Your task to perform on an android device: turn on priority inbox in the gmail app Image 0: 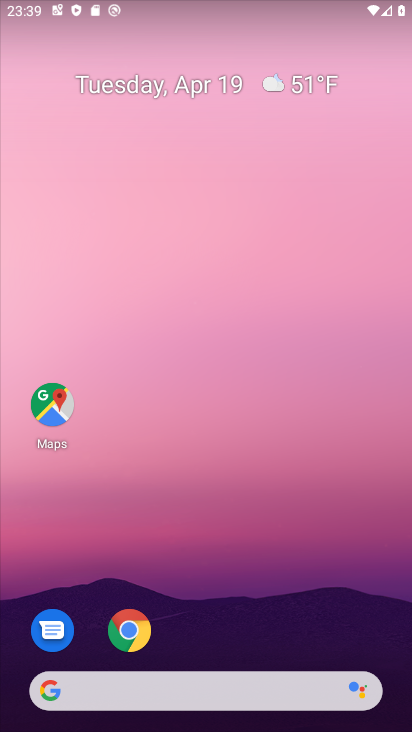
Step 0: drag from (338, 605) to (329, 196)
Your task to perform on an android device: turn on priority inbox in the gmail app Image 1: 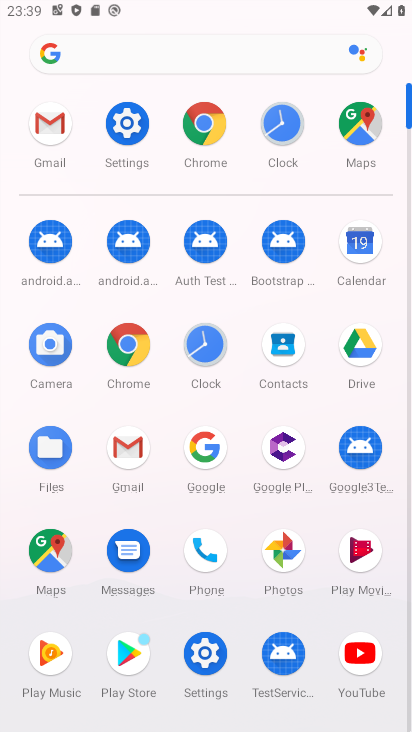
Step 1: click (63, 133)
Your task to perform on an android device: turn on priority inbox in the gmail app Image 2: 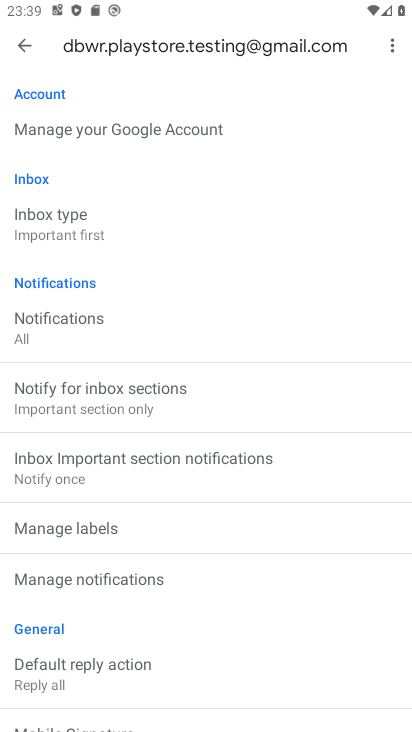
Step 2: click (112, 217)
Your task to perform on an android device: turn on priority inbox in the gmail app Image 3: 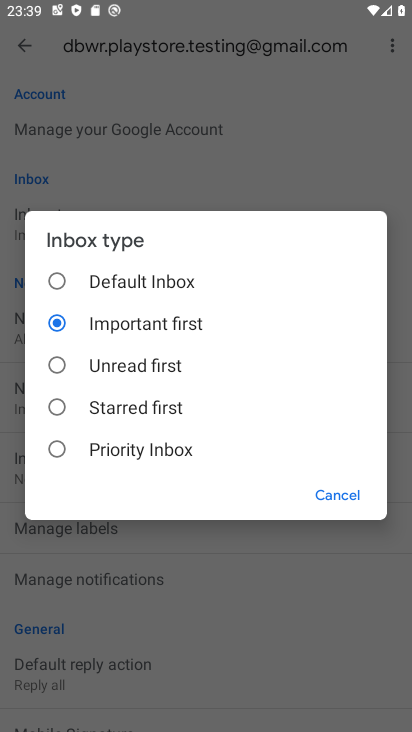
Step 3: click (126, 456)
Your task to perform on an android device: turn on priority inbox in the gmail app Image 4: 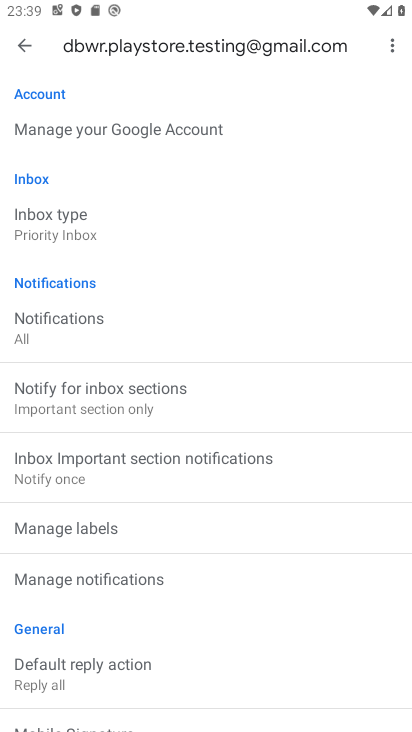
Step 4: task complete